Your task to perform on an android device: Go to Amazon Image 0: 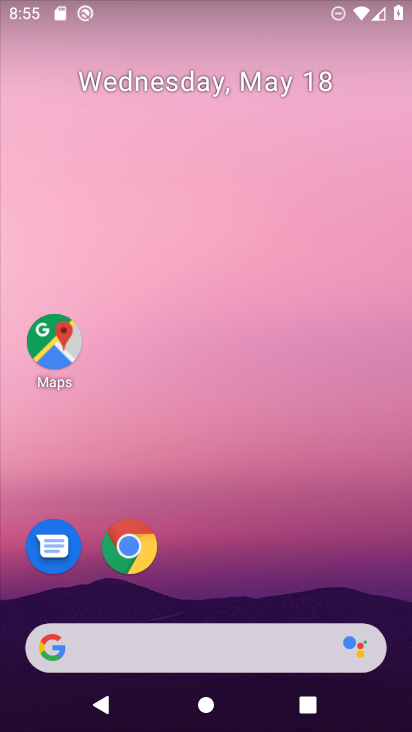
Step 0: drag from (239, 703) to (305, 183)
Your task to perform on an android device: Go to Amazon Image 1: 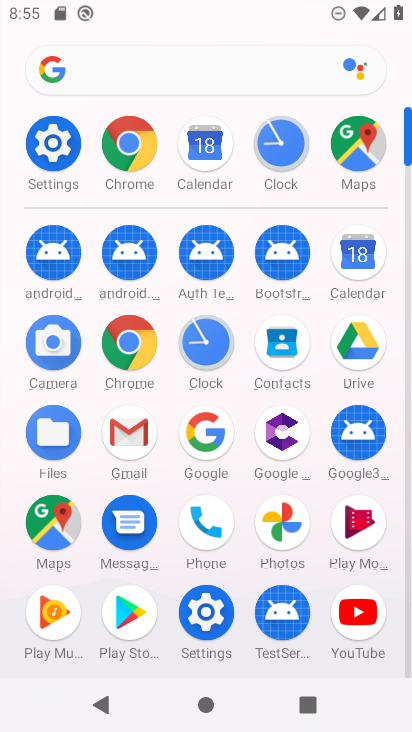
Step 1: click (124, 343)
Your task to perform on an android device: Go to Amazon Image 2: 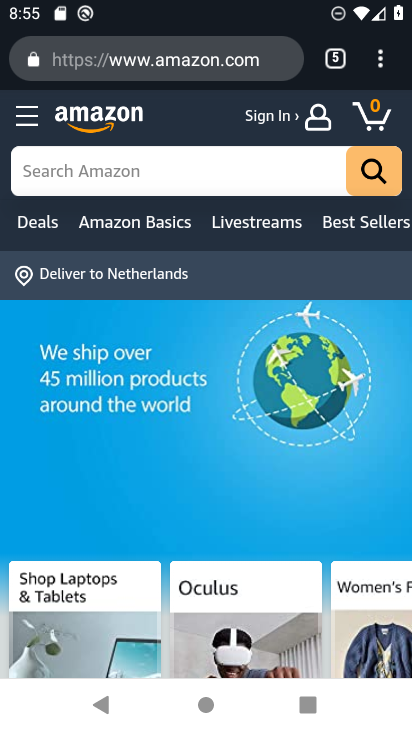
Step 2: click (194, 75)
Your task to perform on an android device: Go to Amazon Image 3: 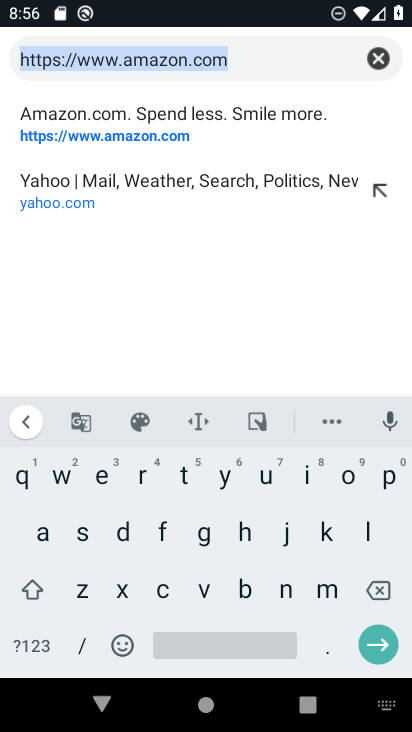
Step 3: click (373, 640)
Your task to perform on an android device: Go to Amazon Image 4: 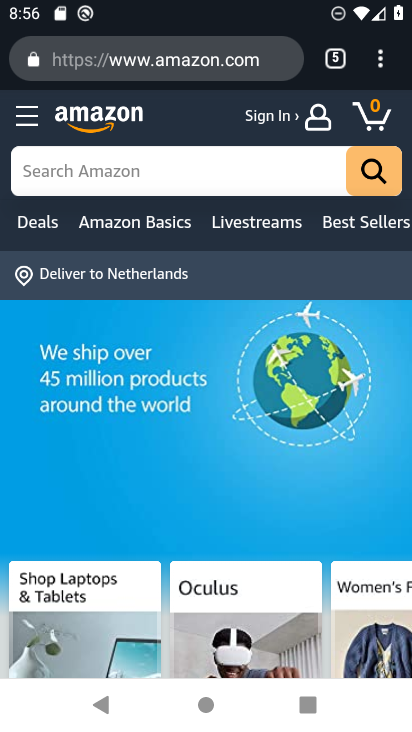
Step 4: task complete